Your task to perform on an android device: find photos in the google photos app Image 0: 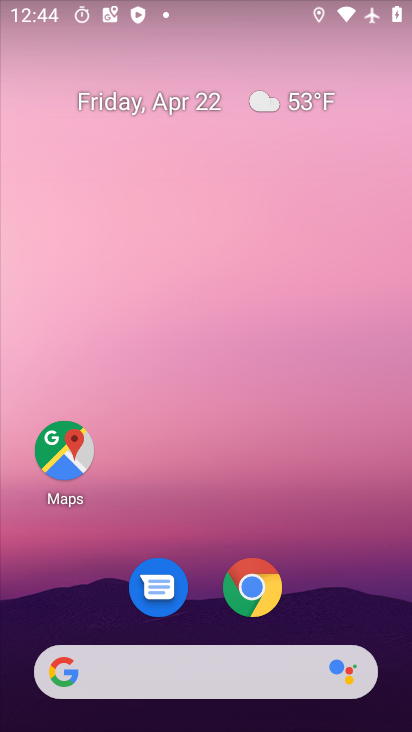
Step 0: drag from (156, 665) to (257, 116)
Your task to perform on an android device: find photos in the google photos app Image 1: 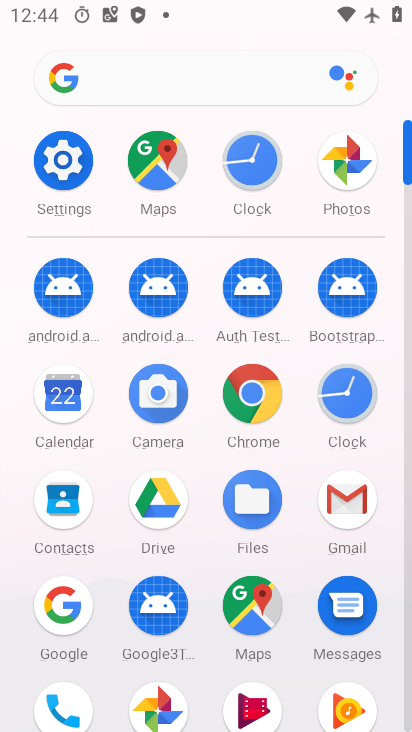
Step 1: click (344, 163)
Your task to perform on an android device: find photos in the google photos app Image 2: 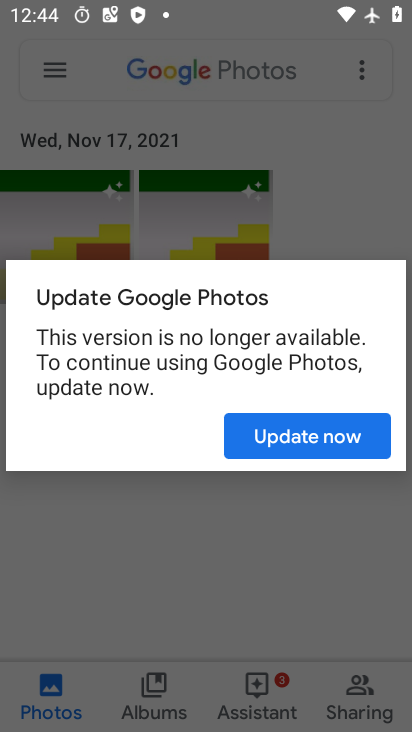
Step 2: click (299, 445)
Your task to perform on an android device: find photos in the google photos app Image 3: 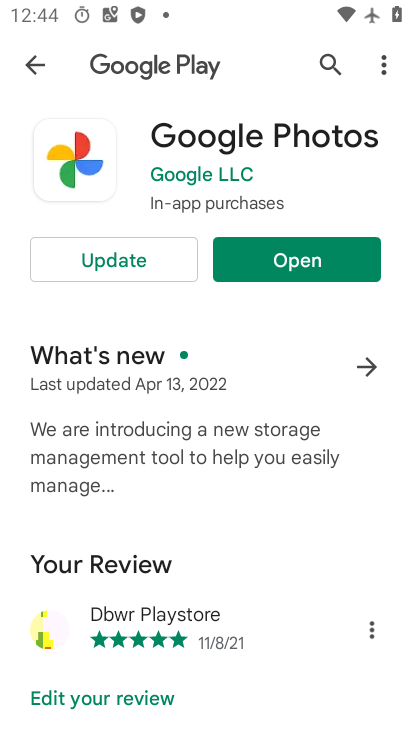
Step 3: click (312, 259)
Your task to perform on an android device: find photos in the google photos app Image 4: 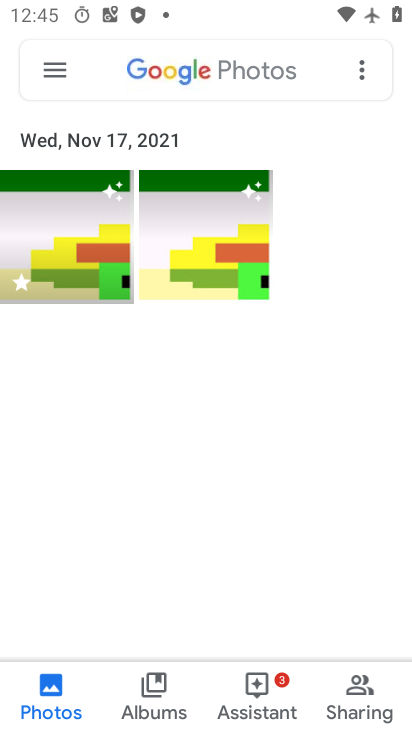
Step 4: task complete